Your task to perform on an android device: Go to privacy settings Image 0: 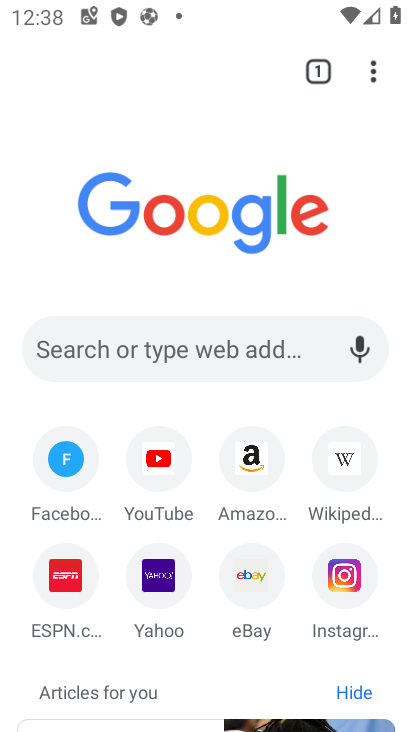
Step 0: press home button
Your task to perform on an android device: Go to privacy settings Image 1: 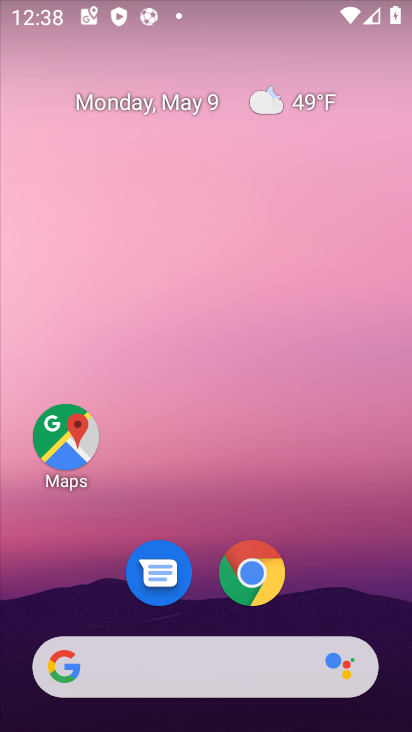
Step 1: drag from (257, 712) to (329, 0)
Your task to perform on an android device: Go to privacy settings Image 2: 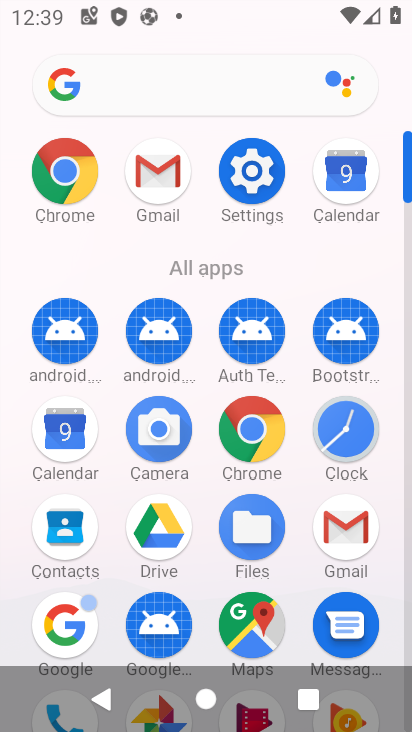
Step 2: click (246, 174)
Your task to perform on an android device: Go to privacy settings Image 3: 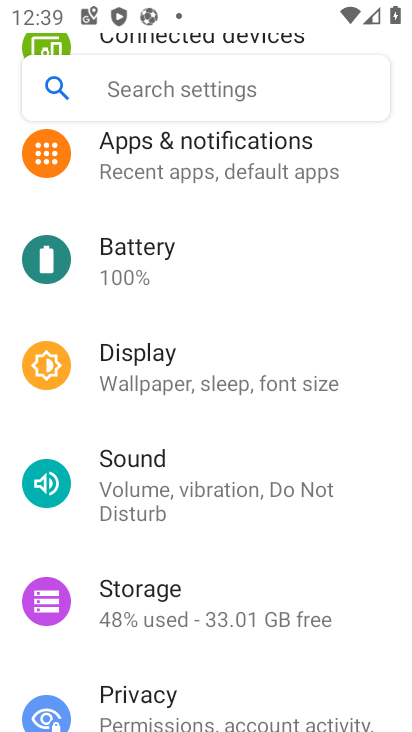
Step 3: click (204, 696)
Your task to perform on an android device: Go to privacy settings Image 4: 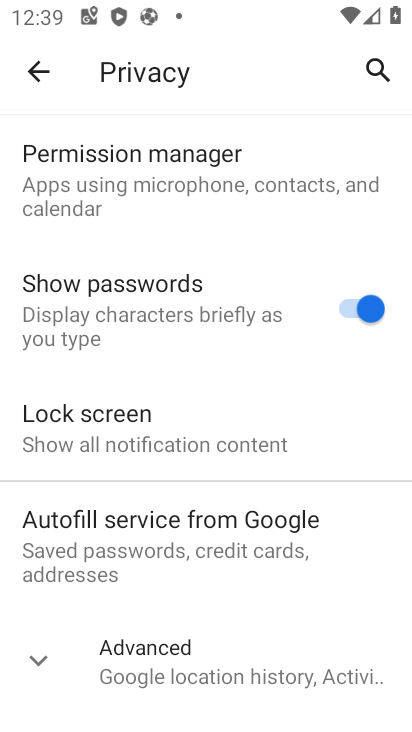
Step 4: task complete